Your task to perform on an android device: Open display settings Image 0: 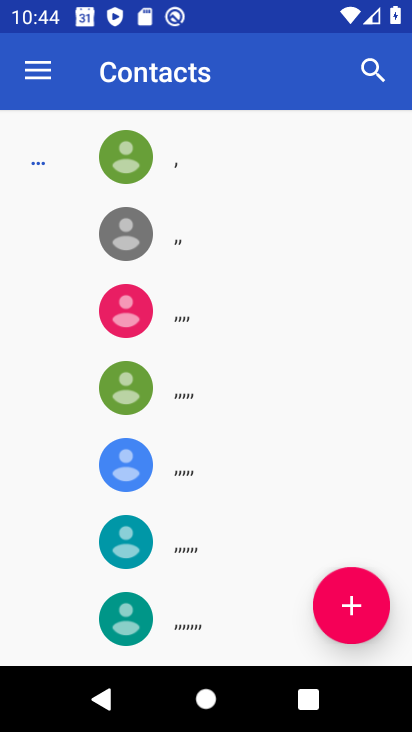
Step 0: press home button
Your task to perform on an android device: Open display settings Image 1: 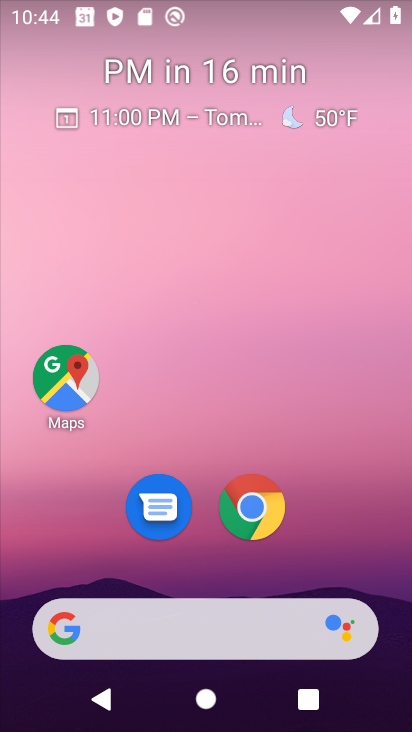
Step 1: drag from (300, 533) to (301, 179)
Your task to perform on an android device: Open display settings Image 2: 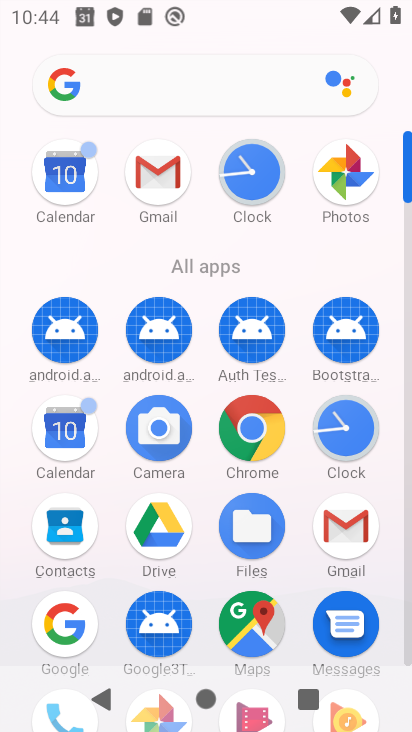
Step 2: drag from (185, 488) to (273, 150)
Your task to perform on an android device: Open display settings Image 3: 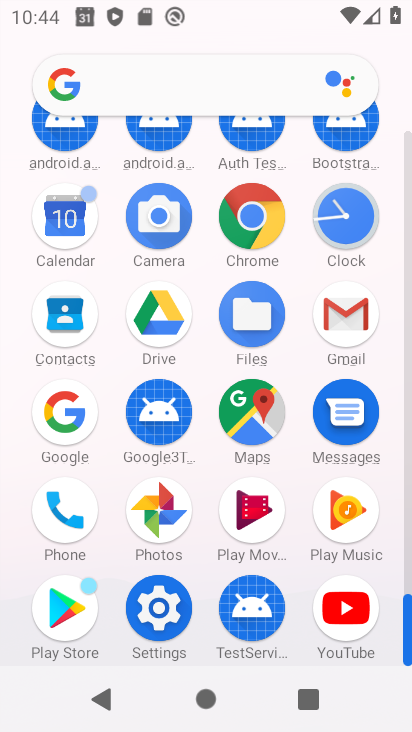
Step 3: click (138, 586)
Your task to perform on an android device: Open display settings Image 4: 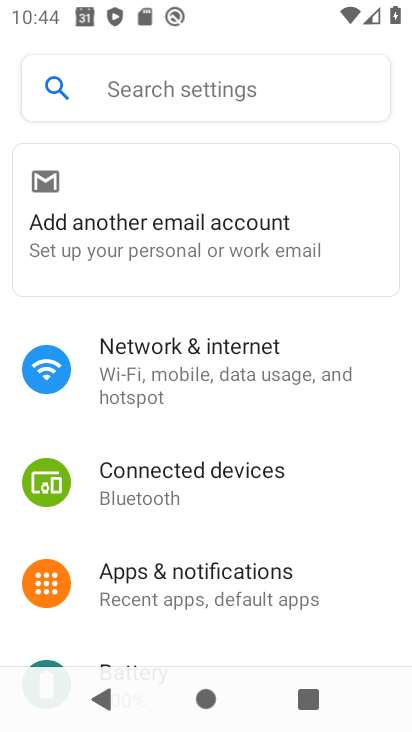
Step 4: drag from (138, 586) to (218, 246)
Your task to perform on an android device: Open display settings Image 5: 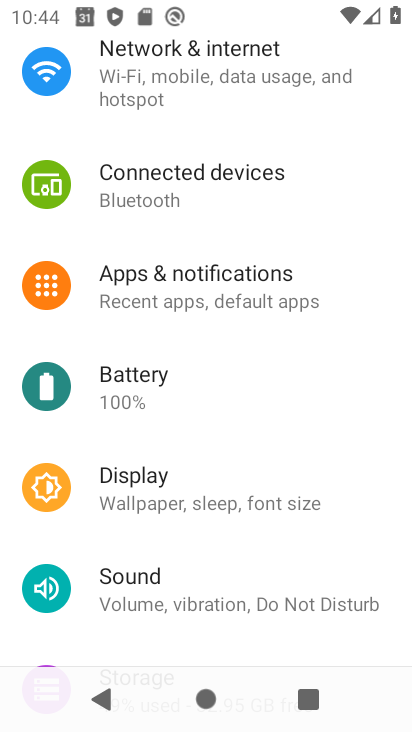
Step 5: click (186, 487)
Your task to perform on an android device: Open display settings Image 6: 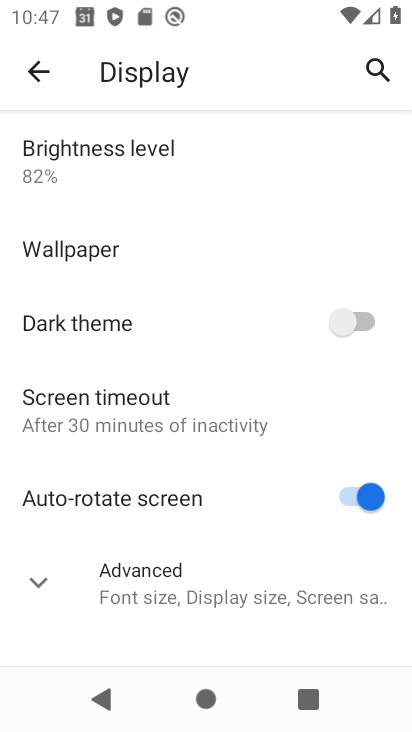
Step 6: task complete